Your task to perform on an android device: turn off notifications settings in the gmail app Image 0: 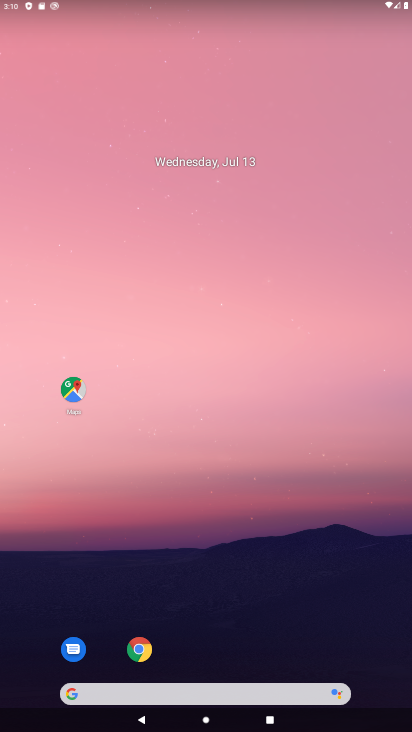
Step 0: drag from (178, 623) to (255, 230)
Your task to perform on an android device: turn off notifications settings in the gmail app Image 1: 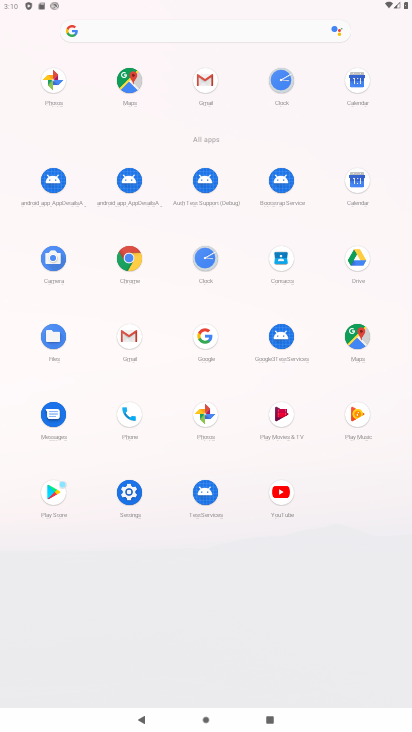
Step 1: click (125, 336)
Your task to perform on an android device: turn off notifications settings in the gmail app Image 2: 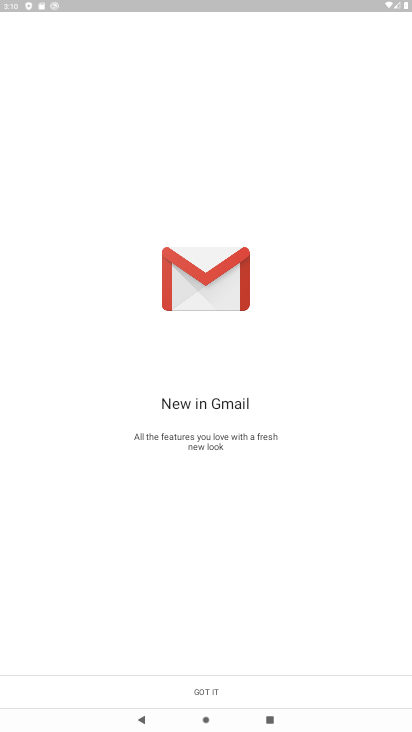
Step 2: click (185, 695)
Your task to perform on an android device: turn off notifications settings in the gmail app Image 3: 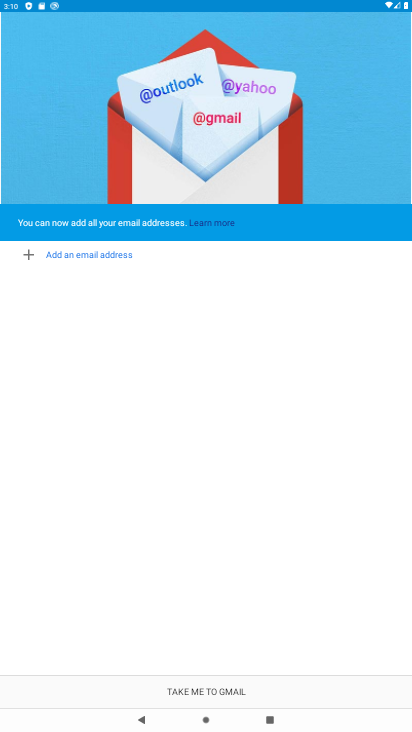
Step 3: click (204, 704)
Your task to perform on an android device: turn off notifications settings in the gmail app Image 4: 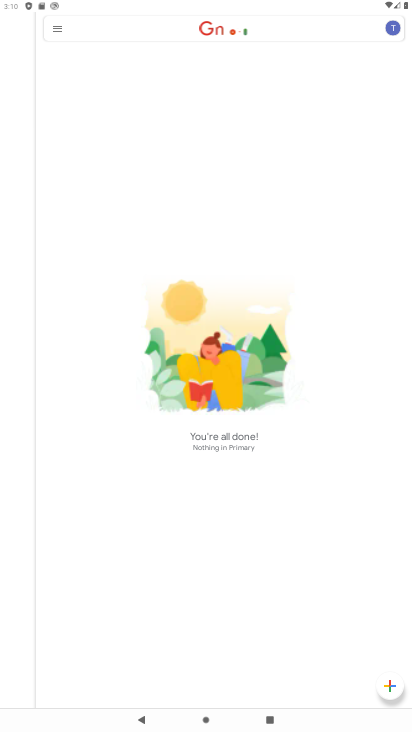
Step 4: click (55, 26)
Your task to perform on an android device: turn off notifications settings in the gmail app Image 5: 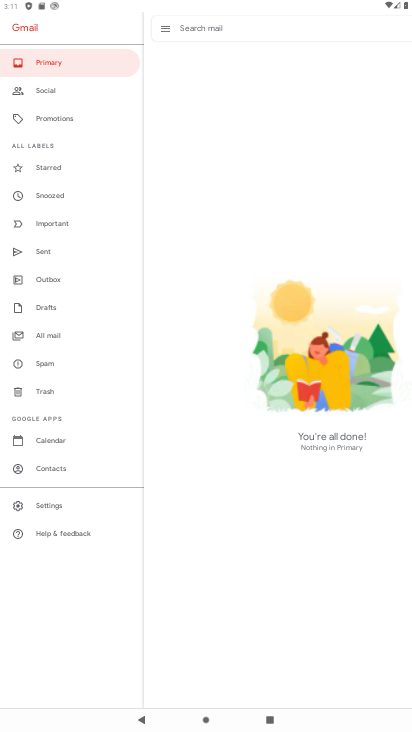
Step 5: click (74, 514)
Your task to perform on an android device: turn off notifications settings in the gmail app Image 6: 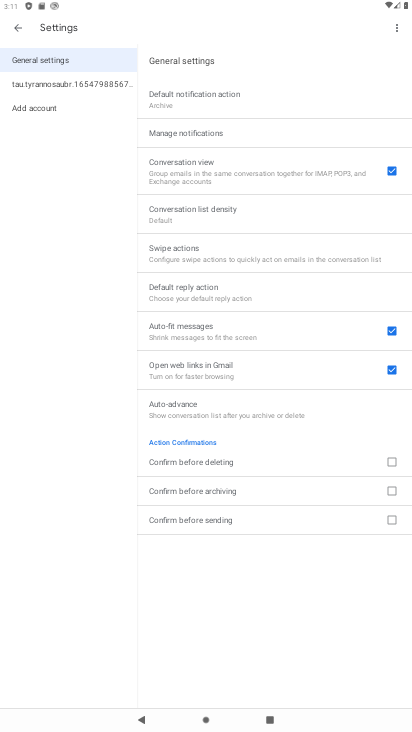
Step 6: click (90, 78)
Your task to perform on an android device: turn off notifications settings in the gmail app Image 7: 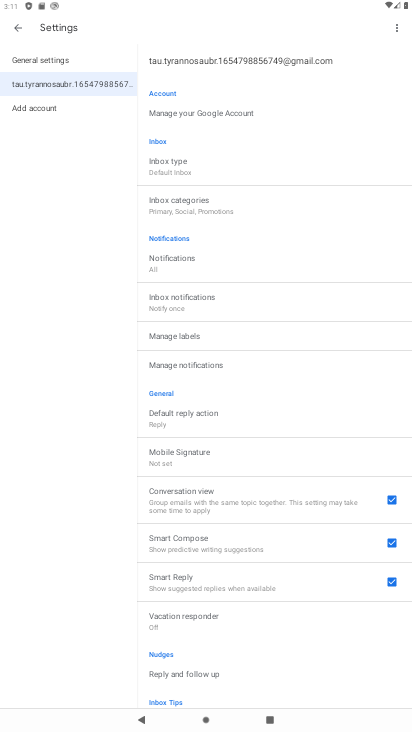
Step 7: click (219, 357)
Your task to perform on an android device: turn off notifications settings in the gmail app Image 8: 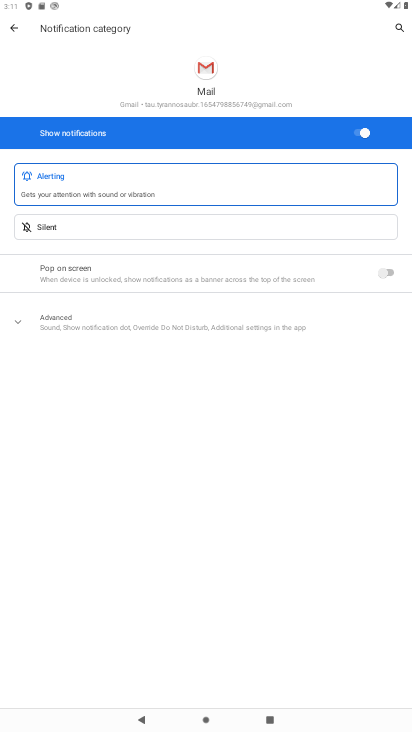
Step 8: click (358, 137)
Your task to perform on an android device: turn off notifications settings in the gmail app Image 9: 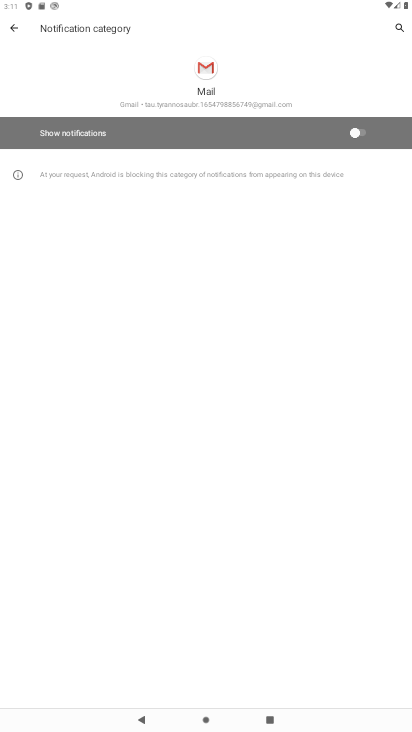
Step 9: task complete